Your task to perform on an android device: Show me the alarms in the clock app Image 0: 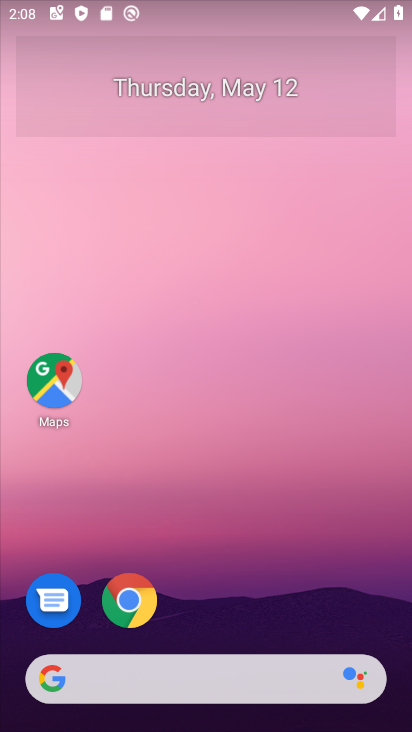
Step 0: drag from (211, 586) to (254, 15)
Your task to perform on an android device: Show me the alarms in the clock app Image 1: 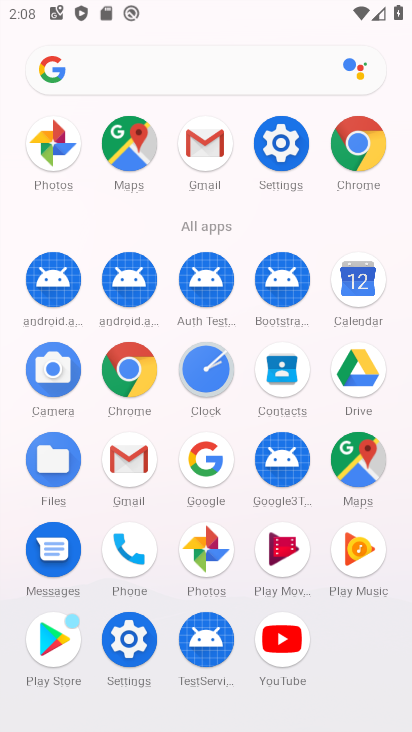
Step 1: click (208, 383)
Your task to perform on an android device: Show me the alarms in the clock app Image 2: 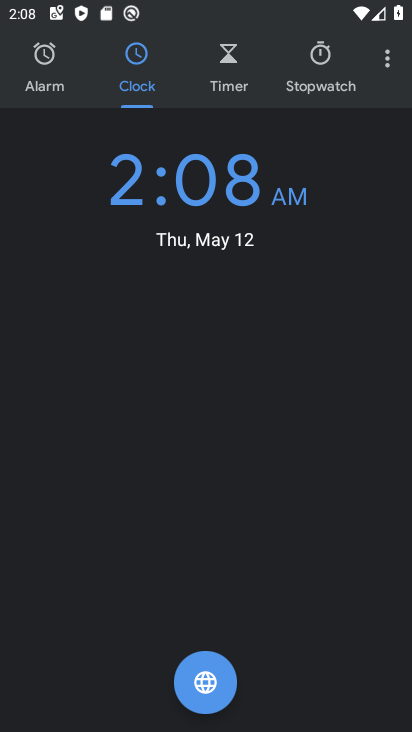
Step 2: click (64, 63)
Your task to perform on an android device: Show me the alarms in the clock app Image 3: 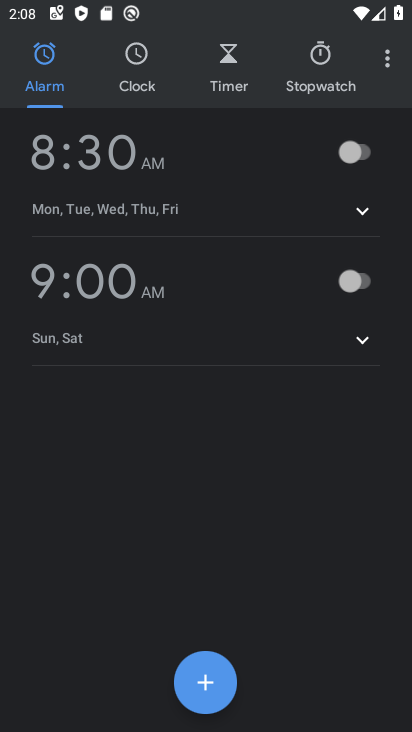
Step 3: task complete